Your task to perform on an android device: allow cookies in the chrome app Image 0: 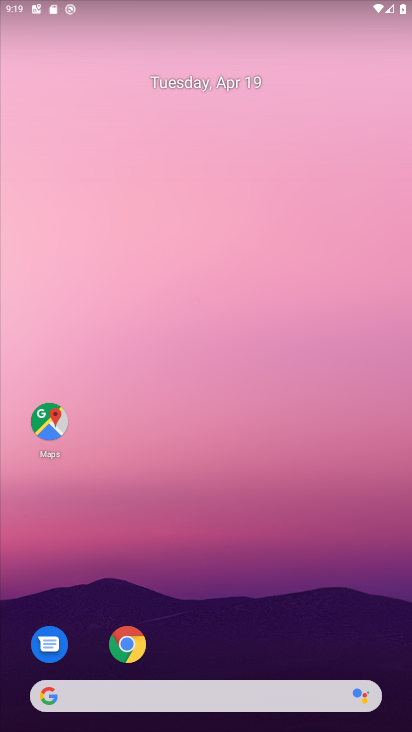
Step 0: drag from (237, 573) to (219, 97)
Your task to perform on an android device: allow cookies in the chrome app Image 1: 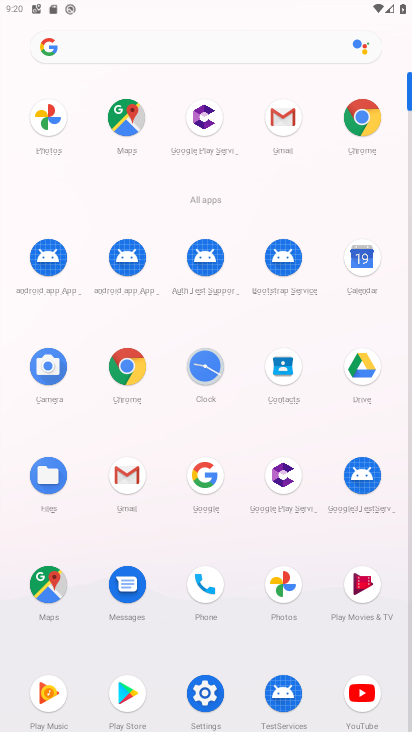
Step 1: click (354, 125)
Your task to perform on an android device: allow cookies in the chrome app Image 2: 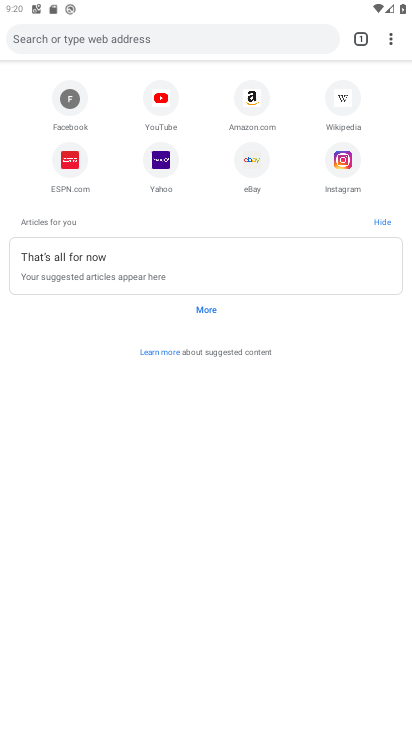
Step 2: click (388, 35)
Your task to perform on an android device: allow cookies in the chrome app Image 3: 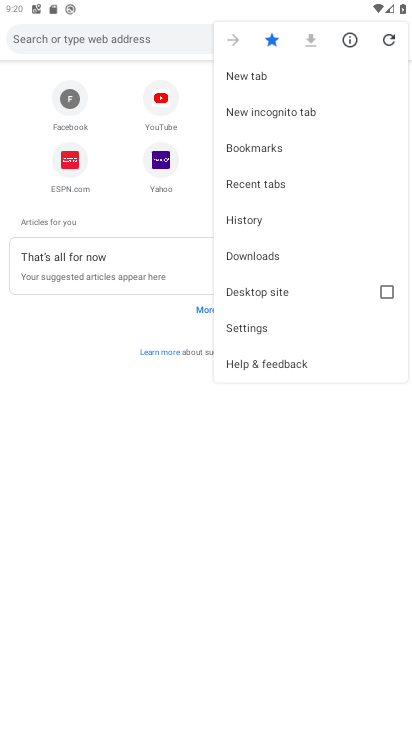
Step 3: click (264, 221)
Your task to perform on an android device: allow cookies in the chrome app Image 4: 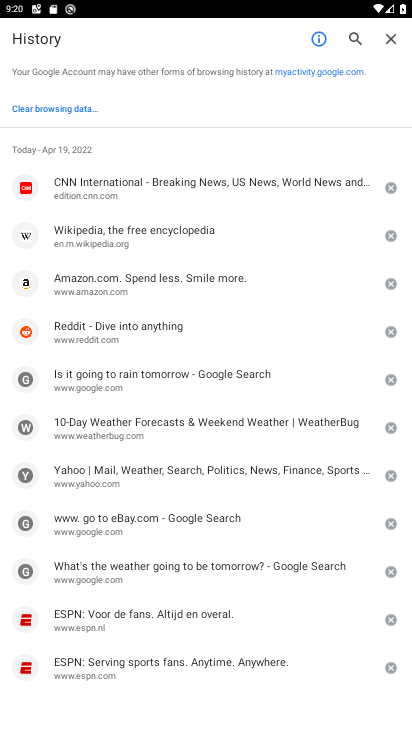
Step 4: click (53, 106)
Your task to perform on an android device: allow cookies in the chrome app Image 5: 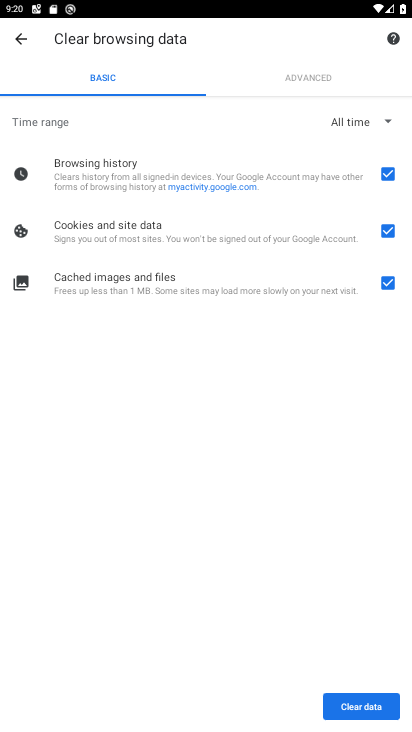
Step 5: click (301, 74)
Your task to perform on an android device: allow cookies in the chrome app Image 6: 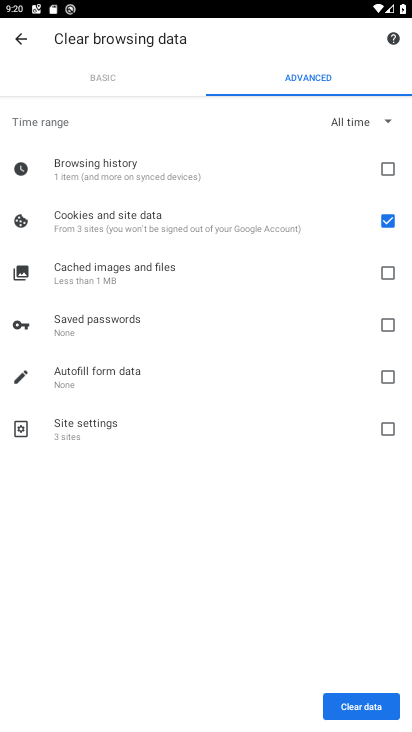
Step 6: task complete